Your task to perform on an android device: toggle data saver in the chrome app Image 0: 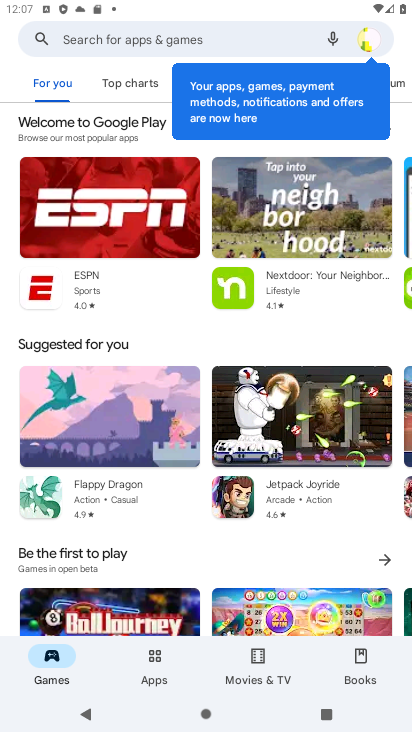
Step 0: press home button
Your task to perform on an android device: toggle data saver in the chrome app Image 1: 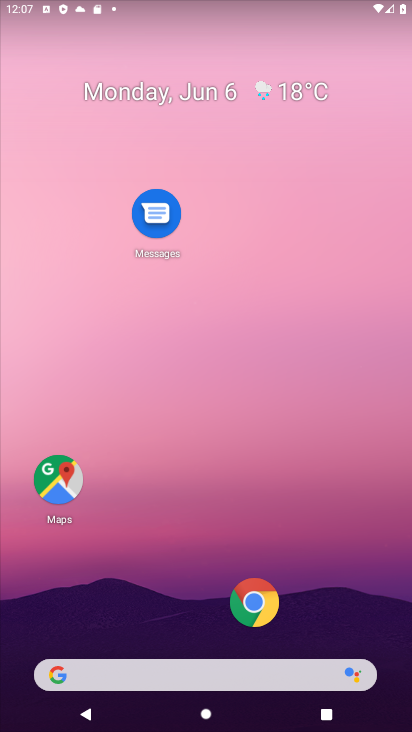
Step 1: click (239, 629)
Your task to perform on an android device: toggle data saver in the chrome app Image 2: 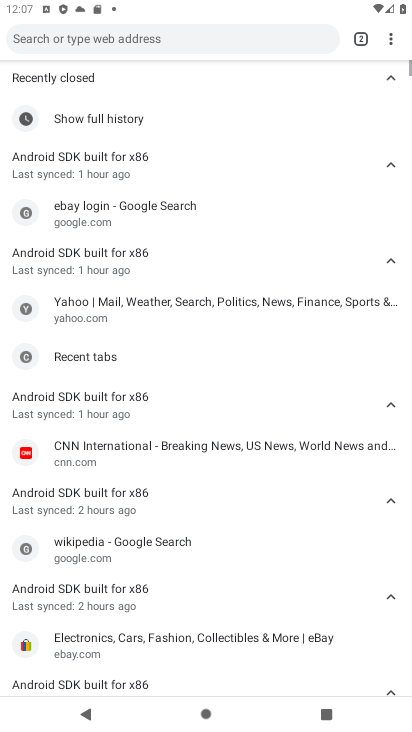
Step 2: task complete